Your task to perform on an android device: turn off priority inbox in the gmail app Image 0: 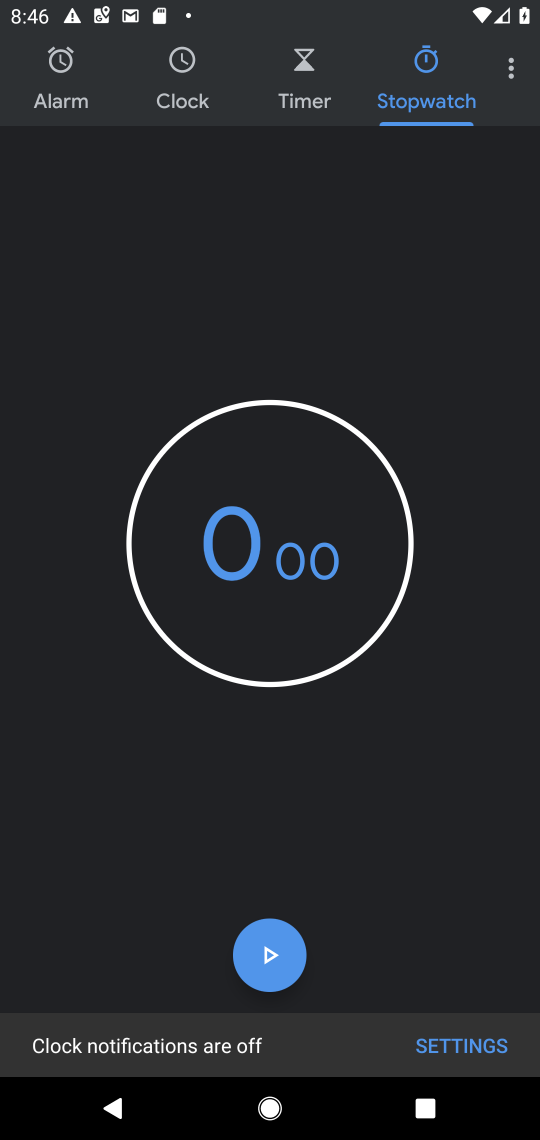
Step 0: press home button
Your task to perform on an android device: turn off priority inbox in the gmail app Image 1: 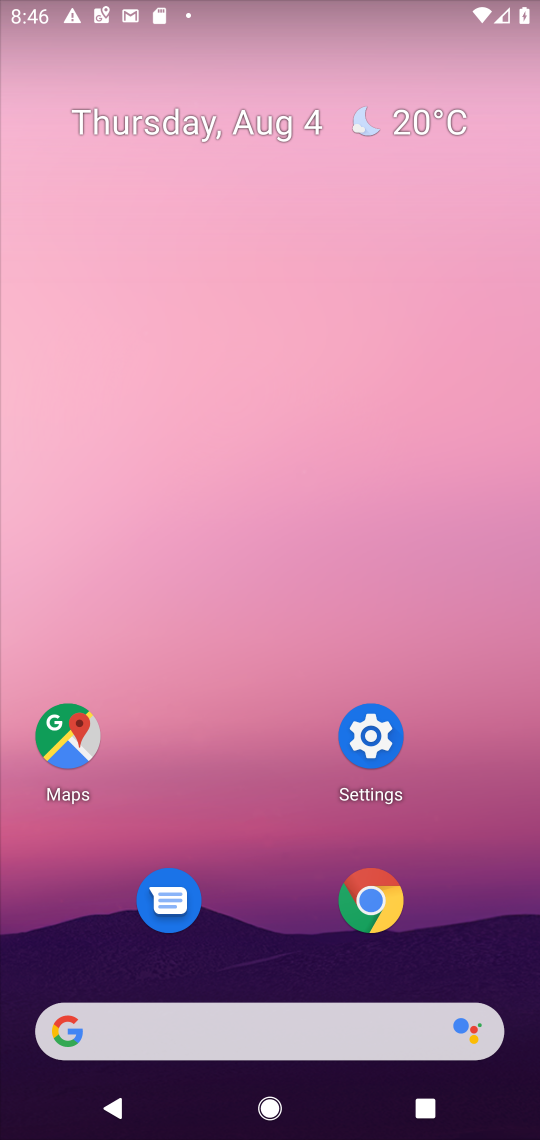
Step 1: drag from (274, 1017) to (485, 291)
Your task to perform on an android device: turn off priority inbox in the gmail app Image 2: 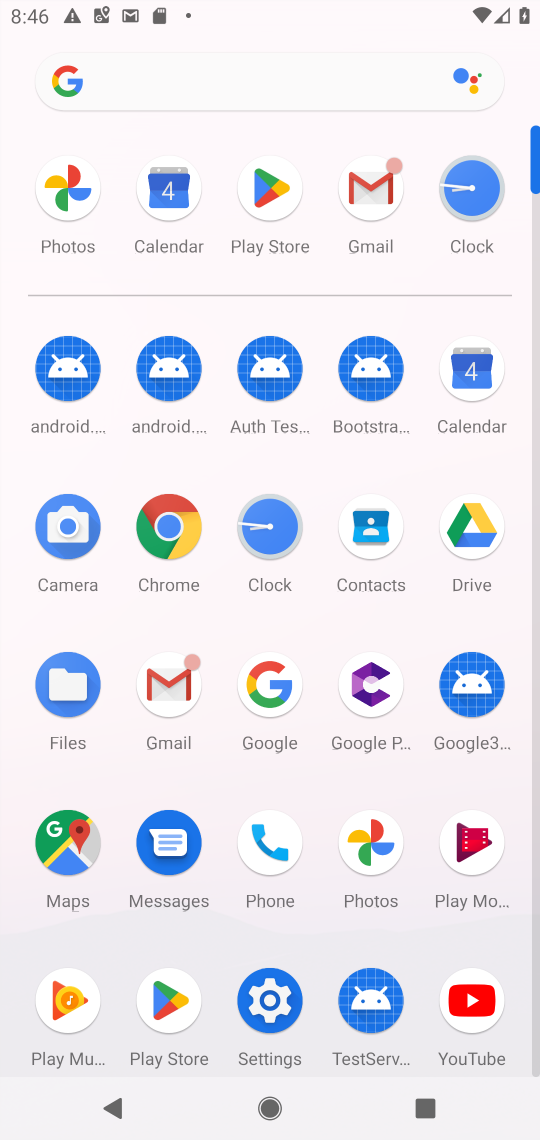
Step 2: click (177, 699)
Your task to perform on an android device: turn off priority inbox in the gmail app Image 3: 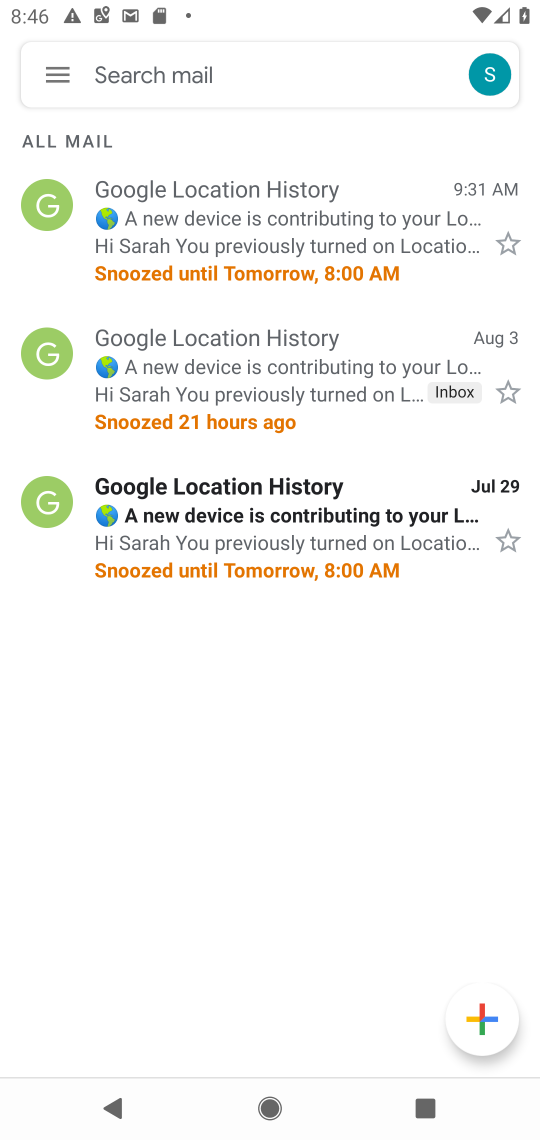
Step 3: click (57, 67)
Your task to perform on an android device: turn off priority inbox in the gmail app Image 4: 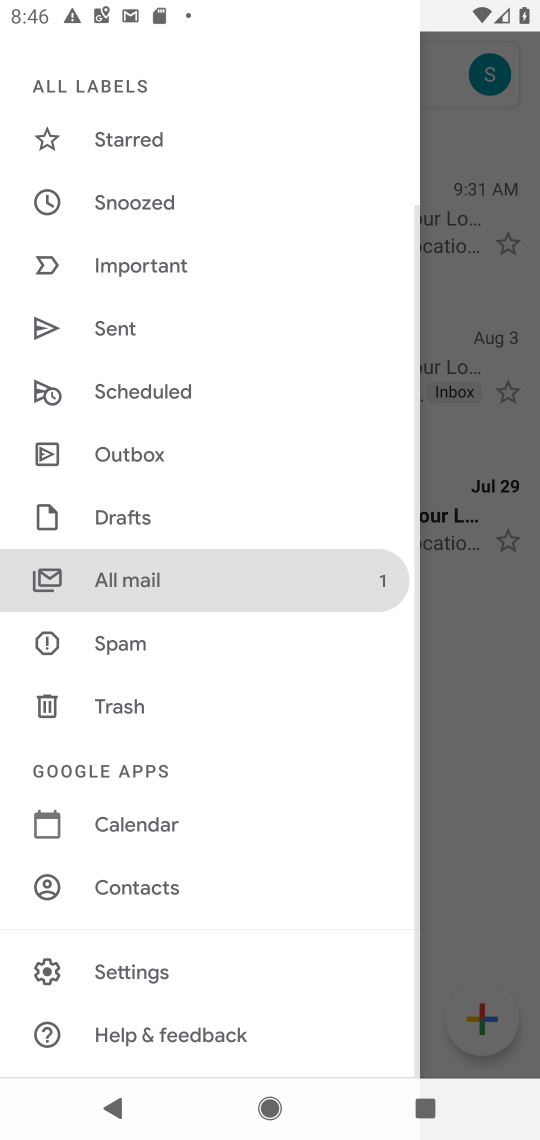
Step 4: click (136, 968)
Your task to perform on an android device: turn off priority inbox in the gmail app Image 5: 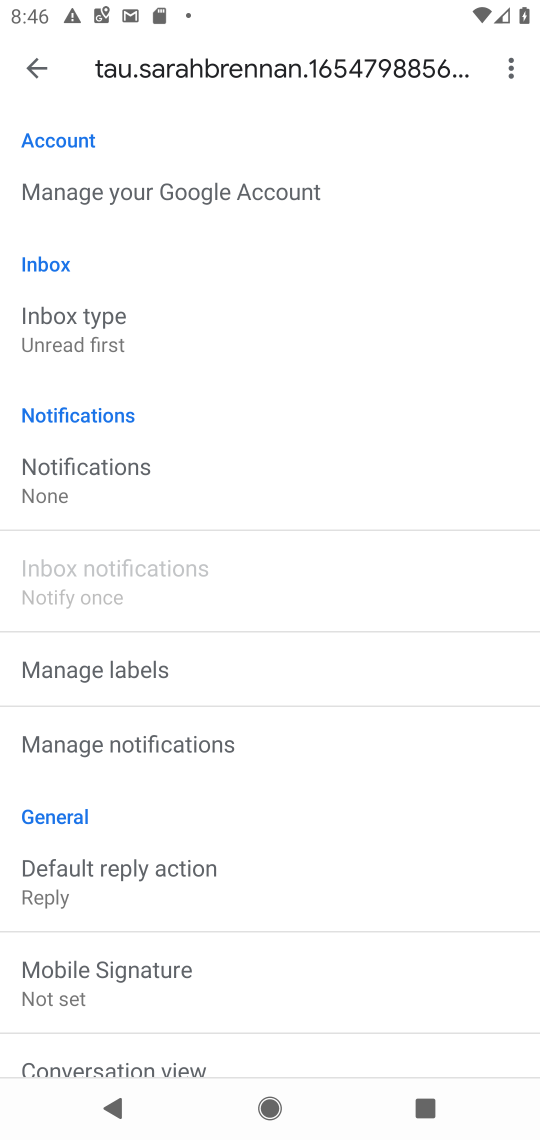
Step 5: click (76, 466)
Your task to perform on an android device: turn off priority inbox in the gmail app Image 6: 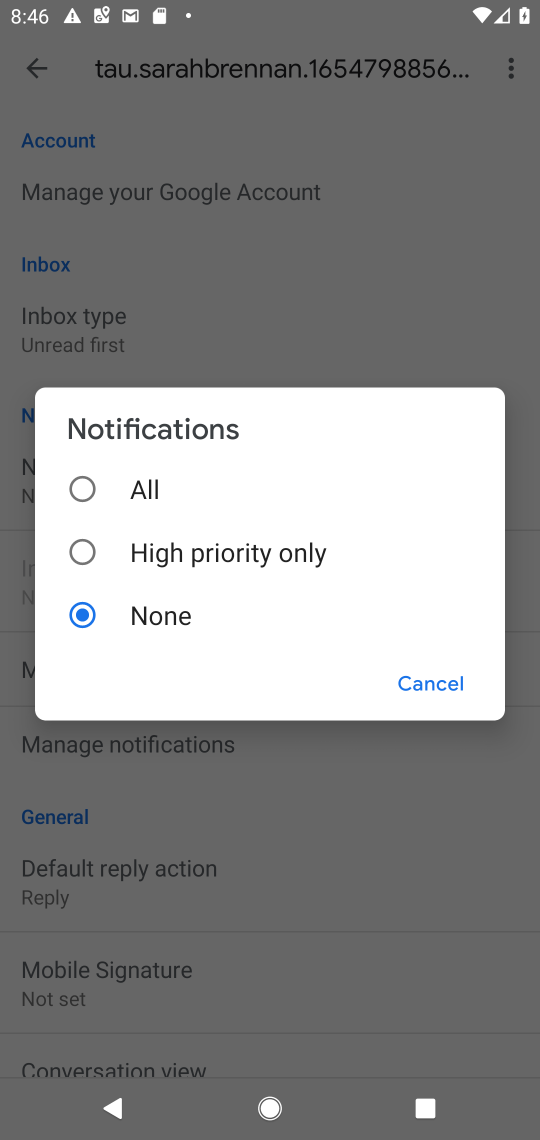
Step 6: click (431, 674)
Your task to perform on an android device: turn off priority inbox in the gmail app Image 7: 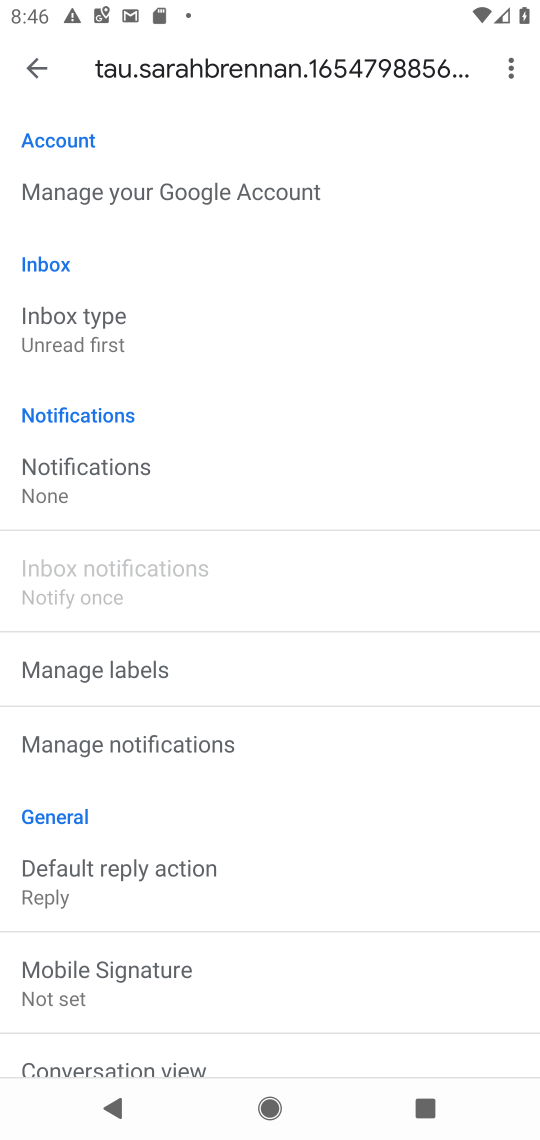
Step 7: click (117, 338)
Your task to perform on an android device: turn off priority inbox in the gmail app Image 8: 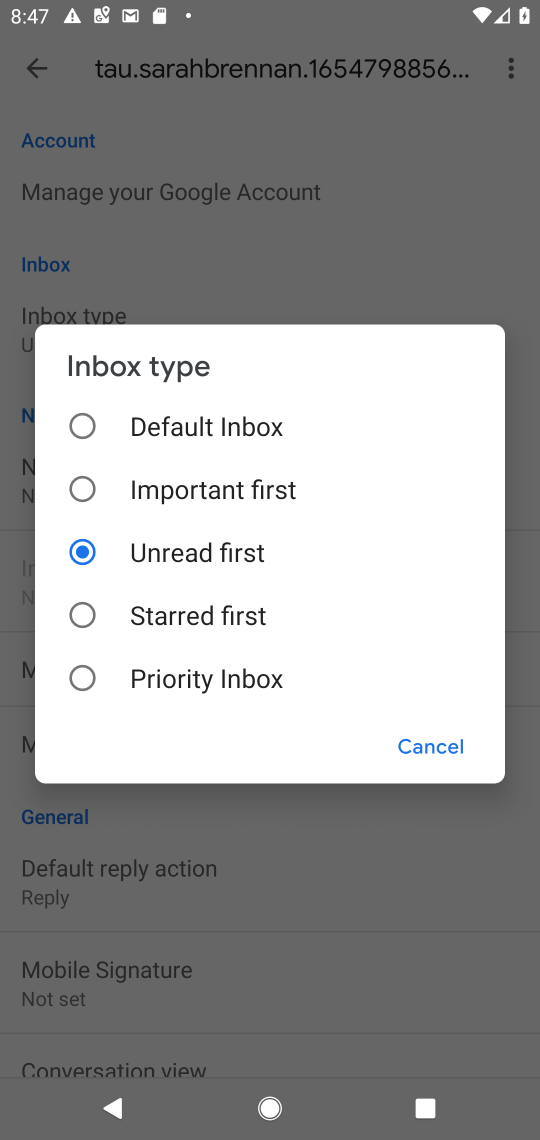
Step 8: task complete